Your task to perform on an android device: Open settings Image 0: 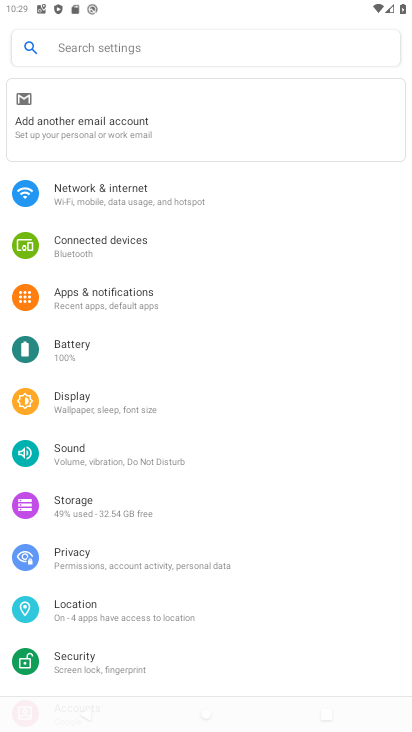
Step 0: press home button
Your task to perform on an android device: Open settings Image 1: 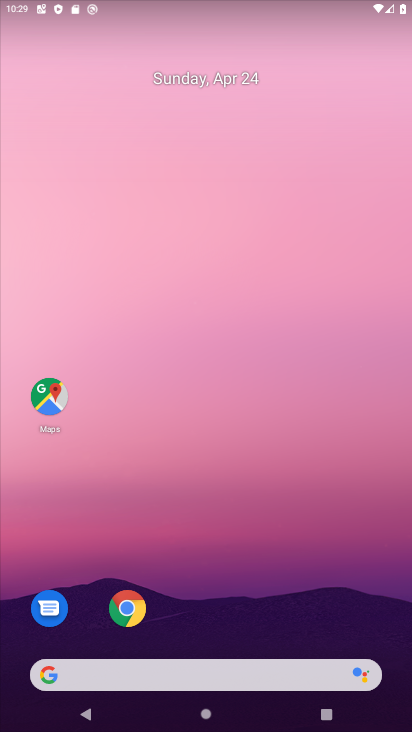
Step 1: drag from (211, 620) to (209, 263)
Your task to perform on an android device: Open settings Image 2: 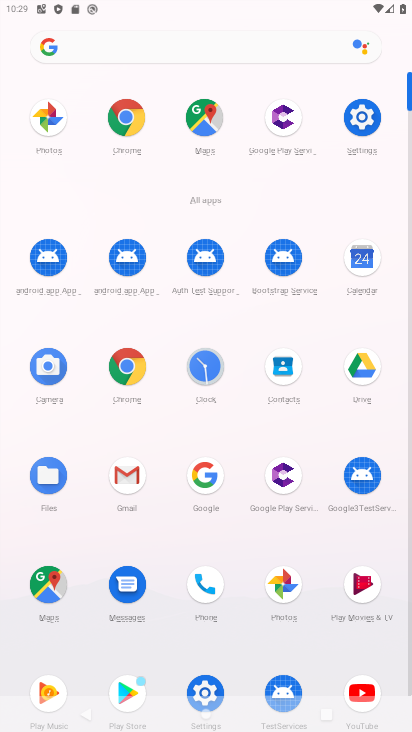
Step 2: click (349, 125)
Your task to perform on an android device: Open settings Image 3: 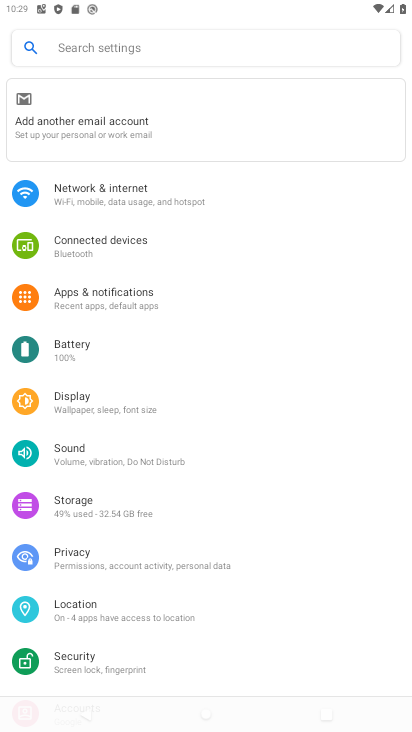
Step 3: task complete